Your task to perform on an android device: Turn off the flashlight Image 0: 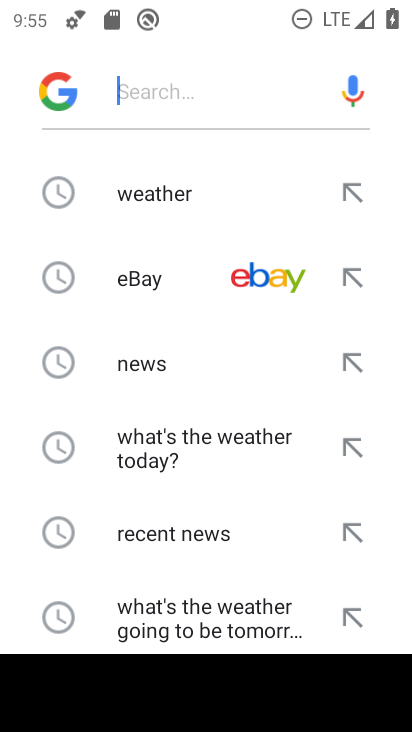
Step 0: press home button
Your task to perform on an android device: Turn off the flashlight Image 1: 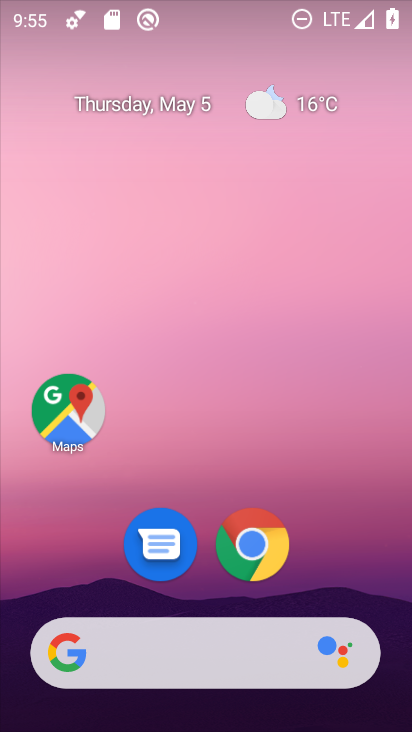
Step 1: task complete